Your task to perform on an android device: open a bookmark in the chrome app Image 0: 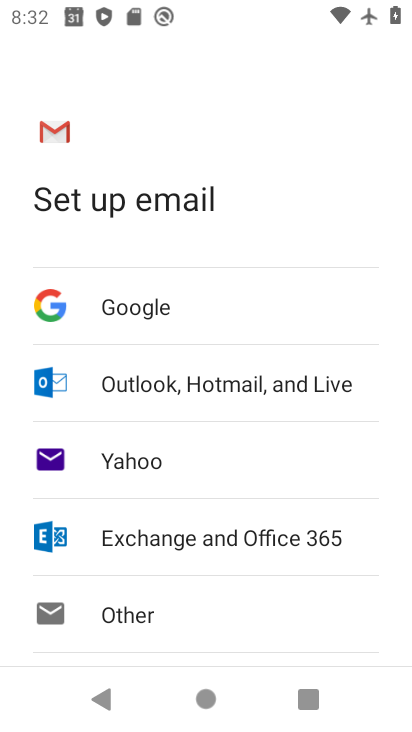
Step 0: press home button
Your task to perform on an android device: open a bookmark in the chrome app Image 1: 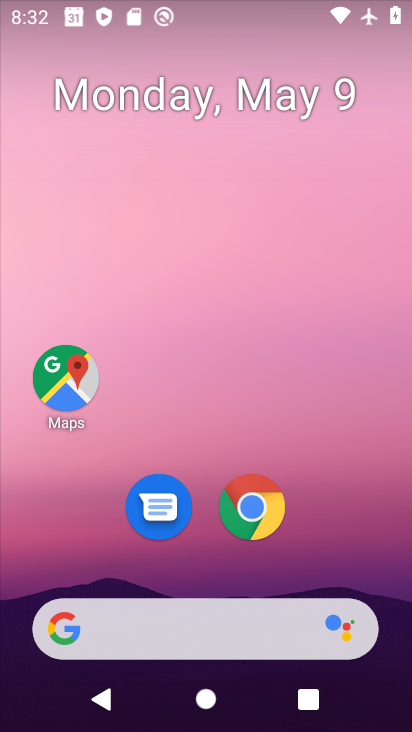
Step 1: drag from (191, 577) to (206, 3)
Your task to perform on an android device: open a bookmark in the chrome app Image 2: 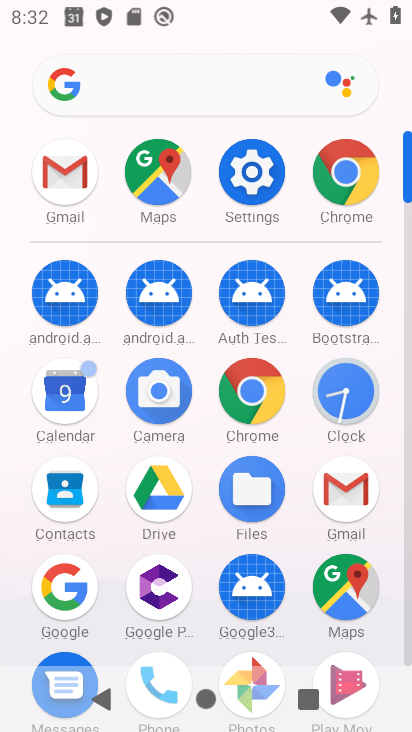
Step 2: click (359, 192)
Your task to perform on an android device: open a bookmark in the chrome app Image 3: 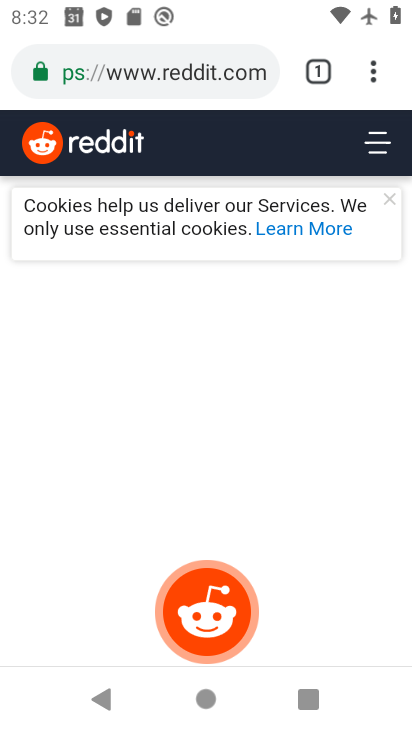
Step 3: click (370, 71)
Your task to perform on an android device: open a bookmark in the chrome app Image 4: 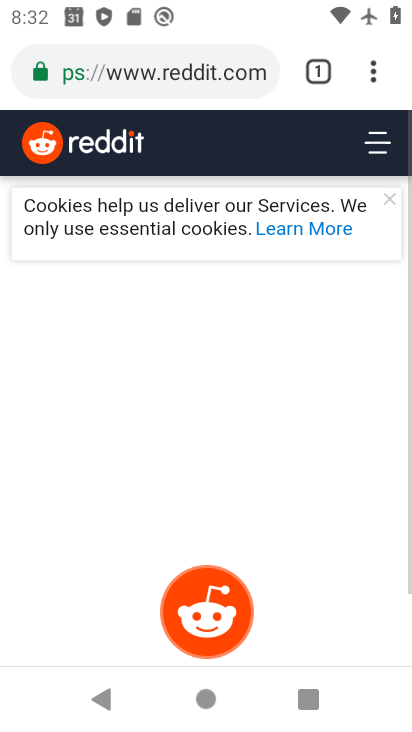
Step 4: click (370, 69)
Your task to perform on an android device: open a bookmark in the chrome app Image 5: 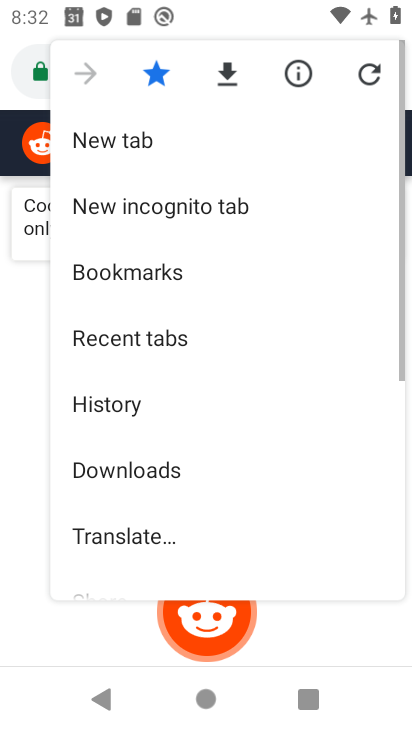
Step 5: click (140, 264)
Your task to perform on an android device: open a bookmark in the chrome app Image 6: 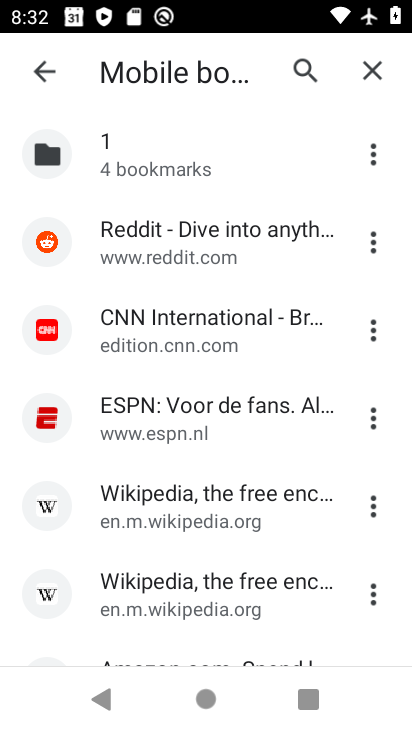
Step 6: task complete